Your task to perform on an android device: Open internet settings Image 0: 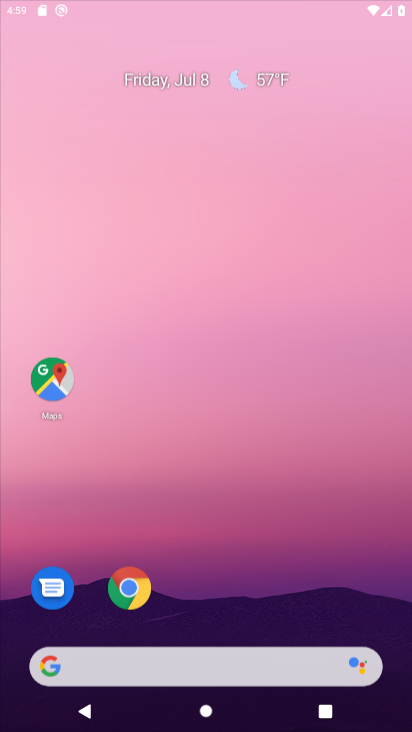
Step 0: click (145, 196)
Your task to perform on an android device: Open internet settings Image 1: 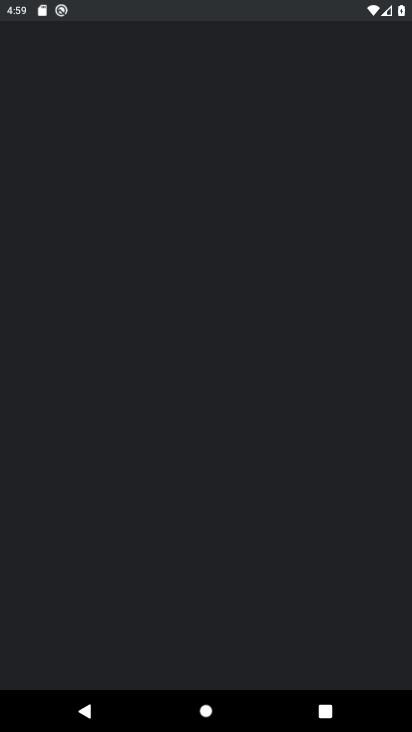
Step 1: drag from (118, 333) to (88, 52)
Your task to perform on an android device: Open internet settings Image 2: 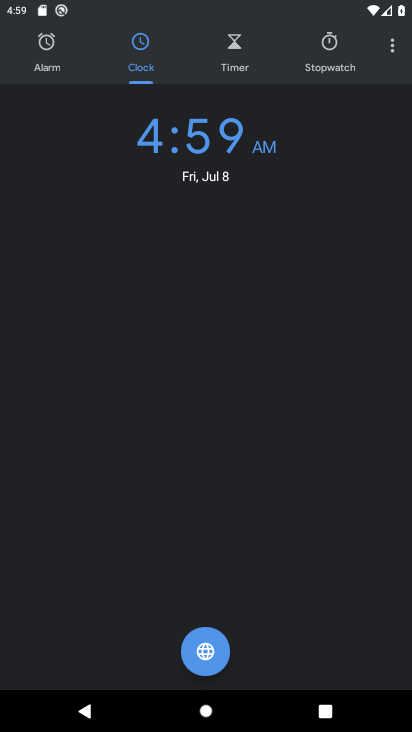
Step 2: drag from (187, 184) to (195, 54)
Your task to perform on an android device: Open internet settings Image 3: 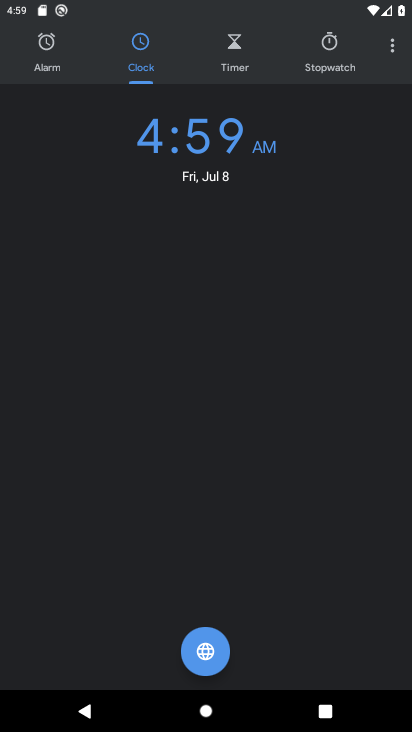
Step 3: press back button
Your task to perform on an android device: Open internet settings Image 4: 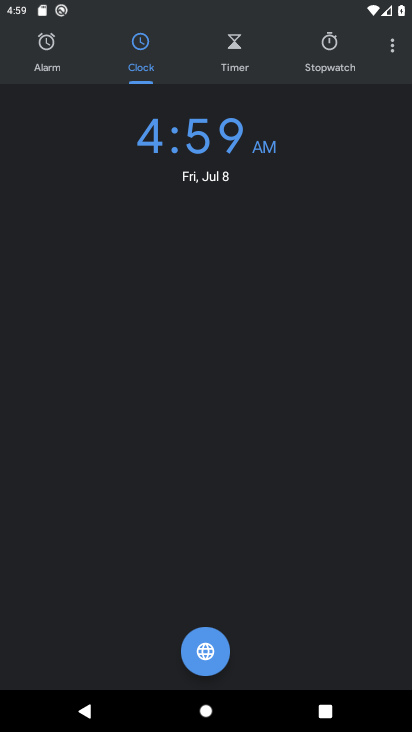
Step 4: press back button
Your task to perform on an android device: Open internet settings Image 5: 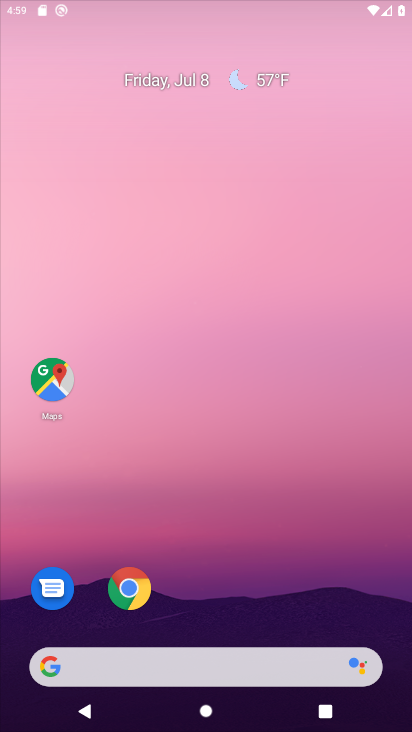
Step 5: press back button
Your task to perform on an android device: Open internet settings Image 6: 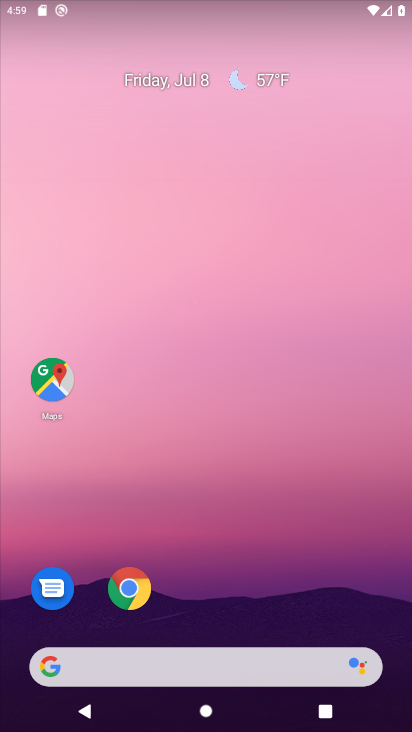
Step 6: press back button
Your task to perform on an android device: Open internet settings Image 7: 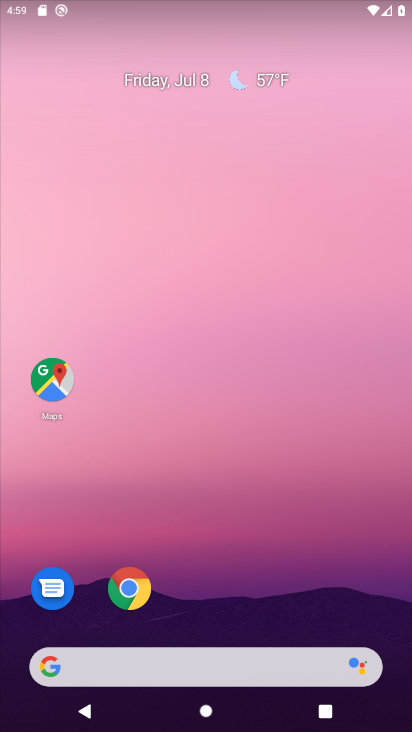
Step 7: press back button
Your task to perform on an android device: Open internet settings Image 8: 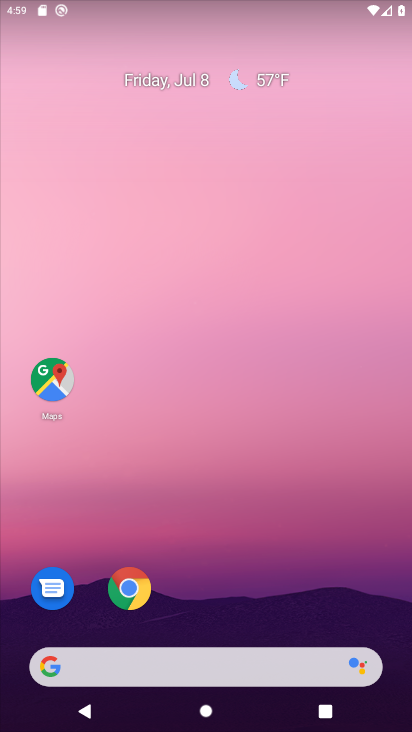
Step 8: drag from (233, 489) to (170, 36)
Your task to perform on an android device: Open internet settings Image 9: 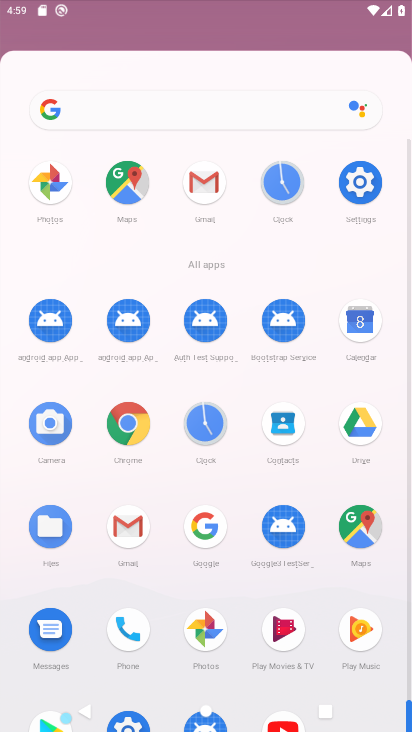
Step 9: drag from (177, 241) to (156, 34)
Your task to perform on an android device: Open internet settings Image 10: 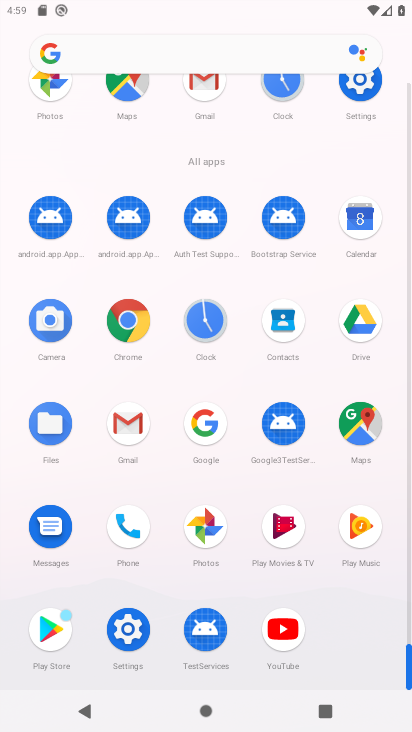
Step 10: click (357, 85)
Your task to perform on an android device: Open internet settings Image 11: 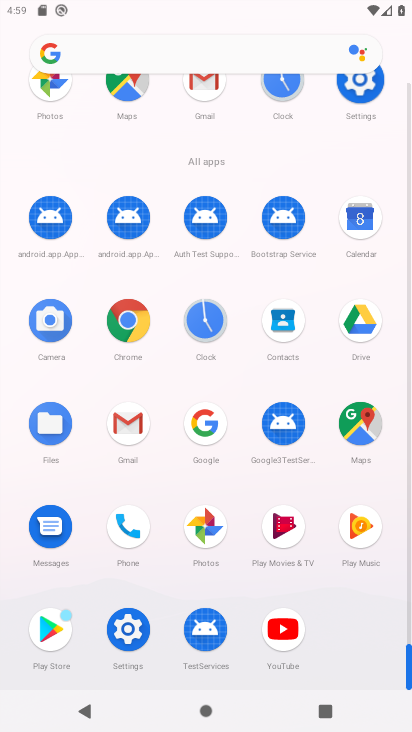
Step 11: click (357, 85)
Your task to perform on an android device: Open internet settings Image 12: 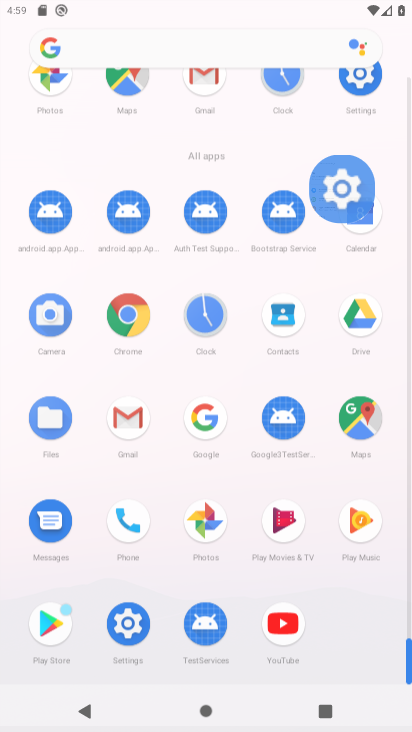
Step 12: click (358, 86)
Your task to perform on an android device: Open internet settings Image 13: 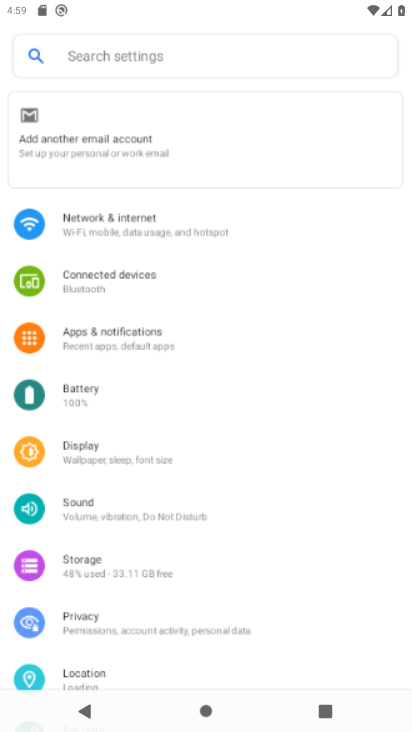
Step 13: click (358, 86)
Your task to perform on an android device: Open internet settings Image 14: 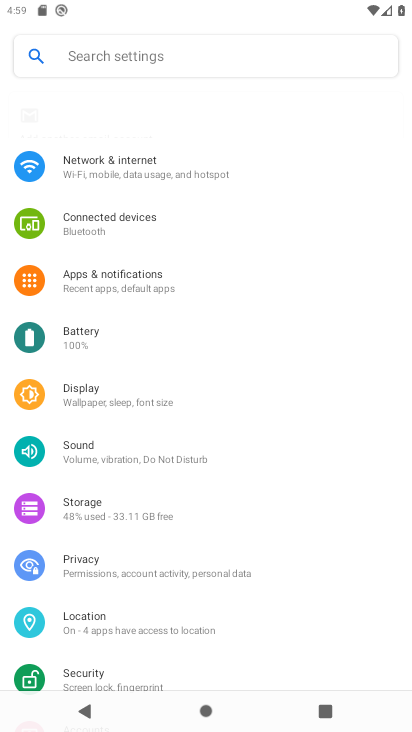
Step 14: click (359, 87)
Your task to perform on an android device: Open internet settings Image 15: 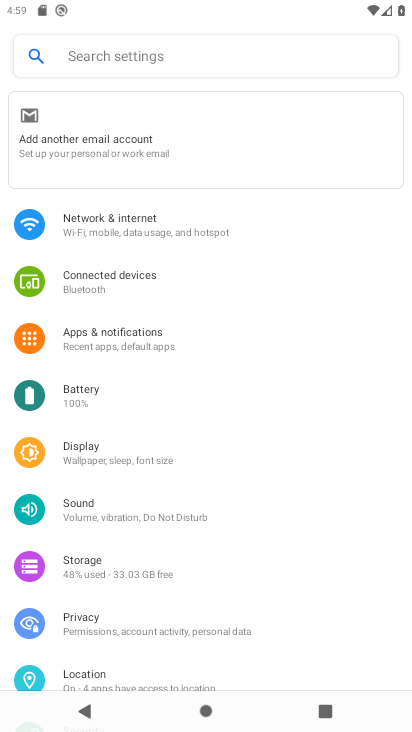
Step 15: click (117, 219)
Your task to perform on an android device: Open internet settings Image 16: 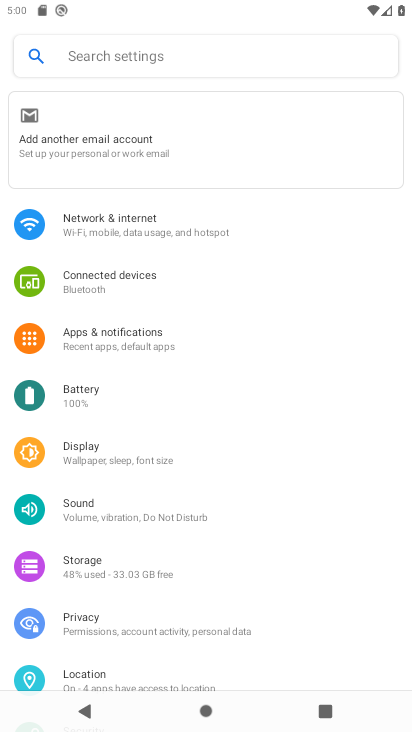
Step 16: click (124, 224)
Your task to perform on an android device: Open internet settings Image 17: 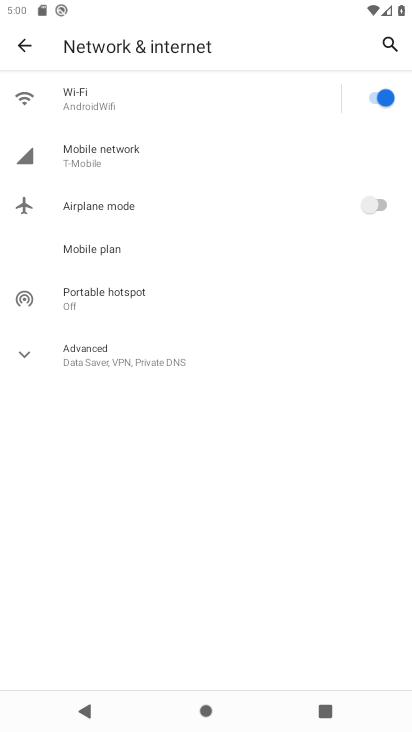
Step 17: click (68, 164)
Your task to perform on an android device: Open internet settings Image 18: 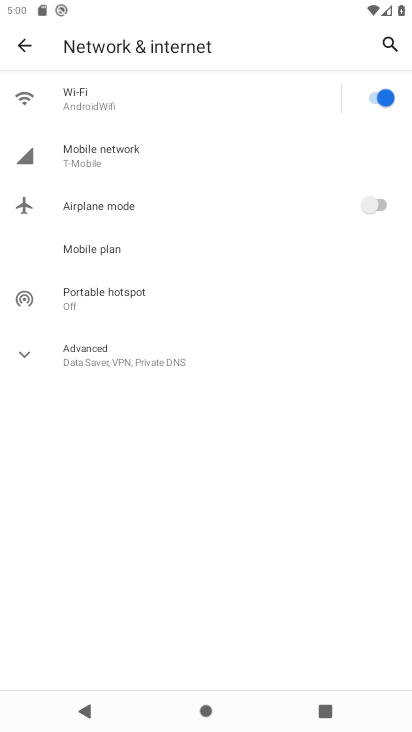
Step 18: click (72, 161)
Your task to perform on an android device: Open internet settings Image 19: 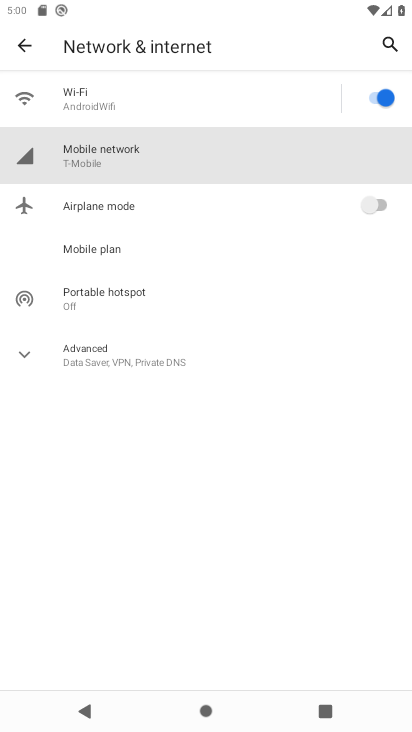
Step 19: click (75, 161)
Your task to perform on an android device: Open internet settings Image 20: 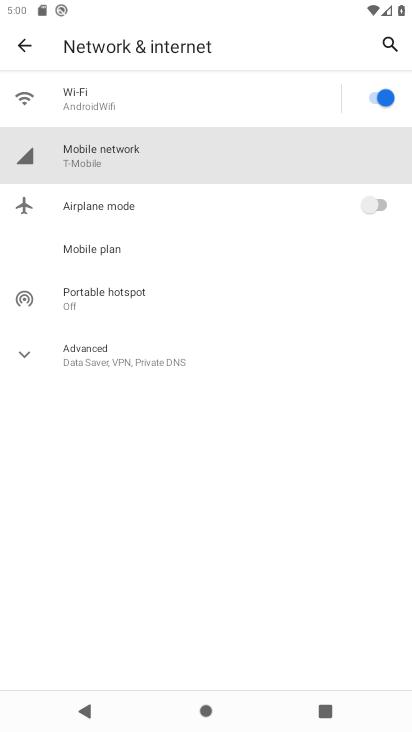
Step 20: click (76, 161)
Your task to perform on an android device: Open internet settings Image 21: 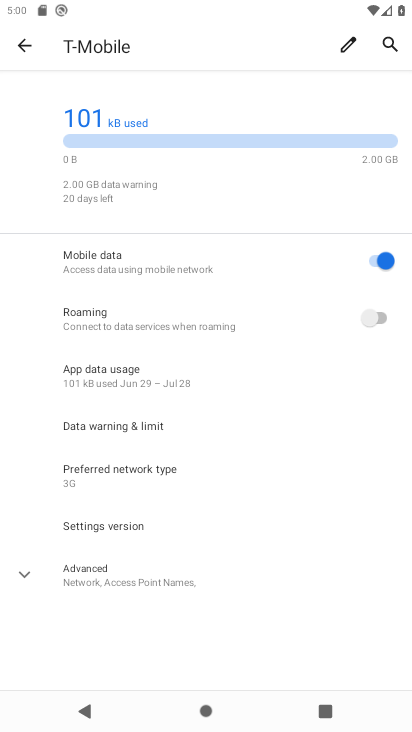
Step 21: click (17, 35)
Your task to perform on an android device: Open internet settings Image 22: 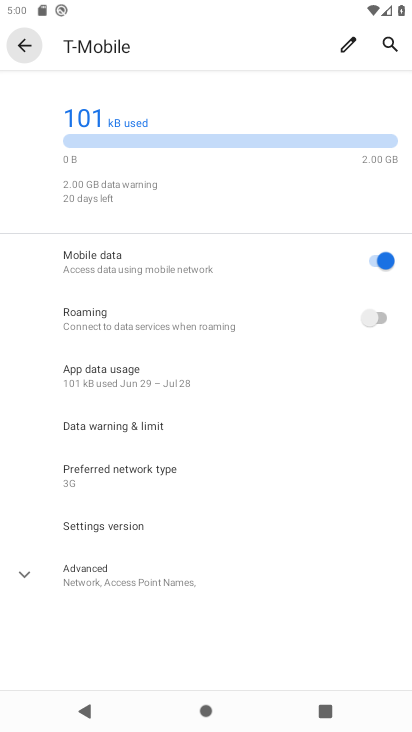
Step 22: click (17, 35)
Your task to perform on an android device: Open internet settings Image 23: 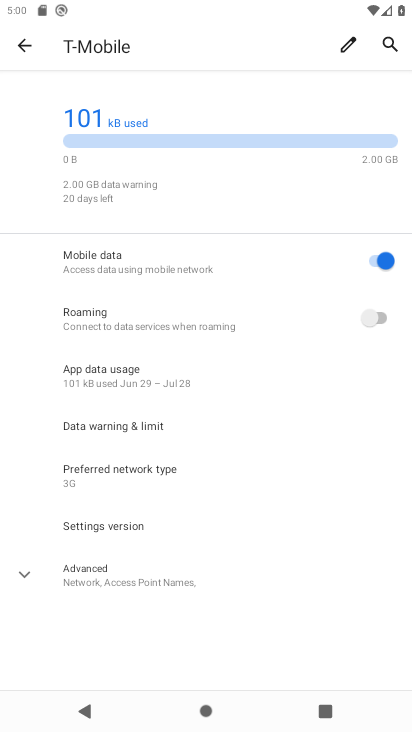
Step 23: click (17, 35)
Your task to perform on an android device: Open internet settings Image 24: 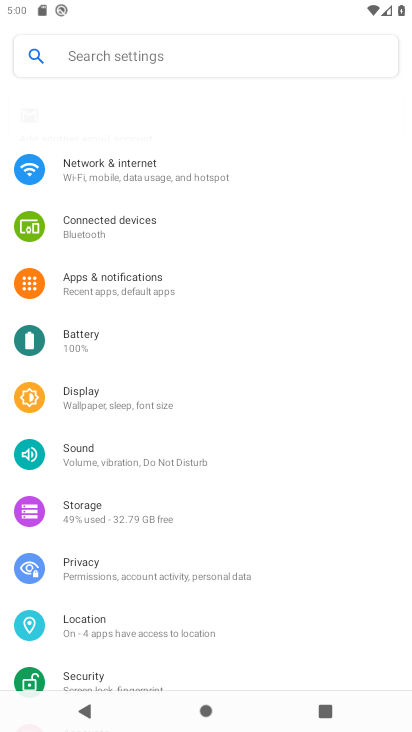
Step 24: task complete